Your task to perform on an android device: What's the weather? Image 0: 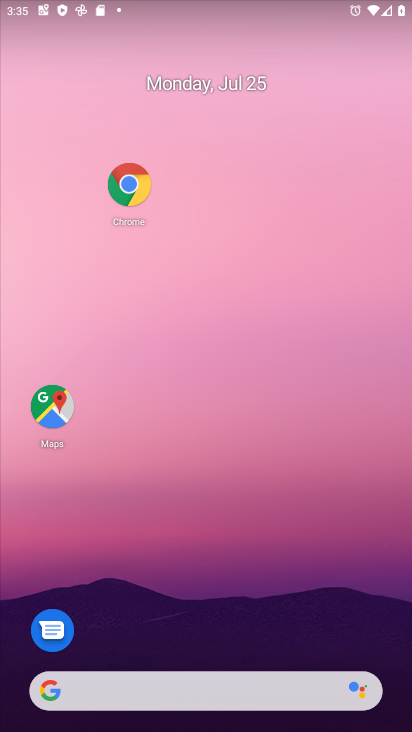
Step 0: drag from (190, 637) to (207, 202)
Your task to perform on an android device: What's the weather? Image 1: 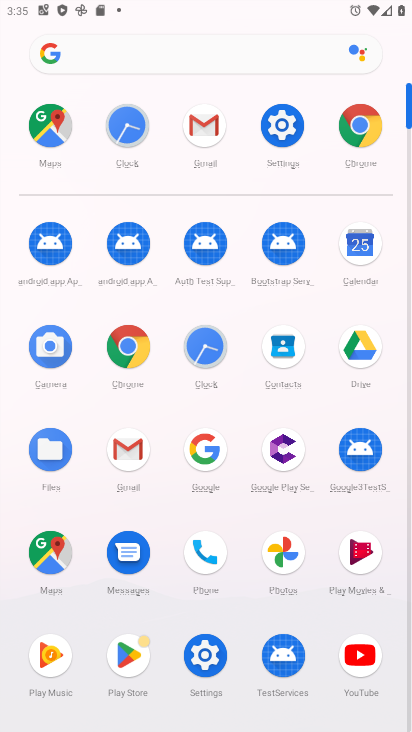
Step 1: click (206, 54)
Your task to perform on an android device: What's the weather? Image 2: 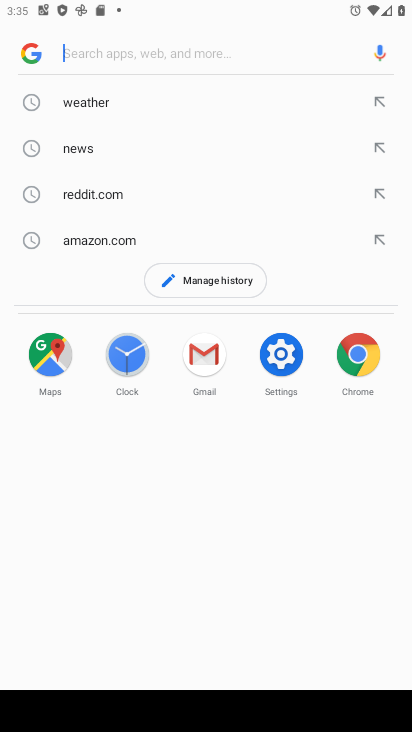
Step 2: type "weather"
Your task to perform on an android device: What's the weather? Image 3: 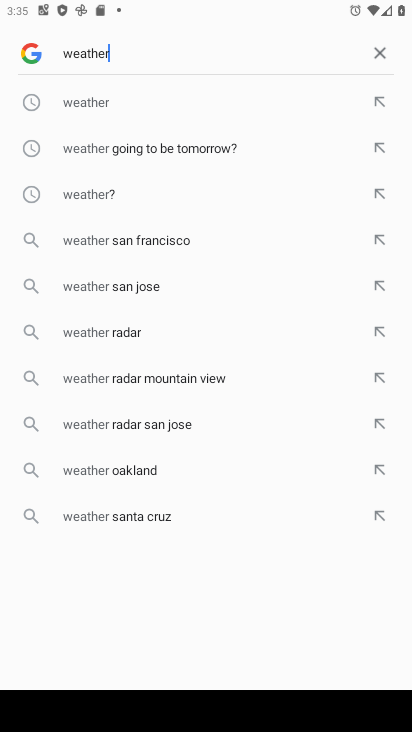
Step 3: click (164, 99)
Your task to perform on an android device: What's the weather? Image 4: 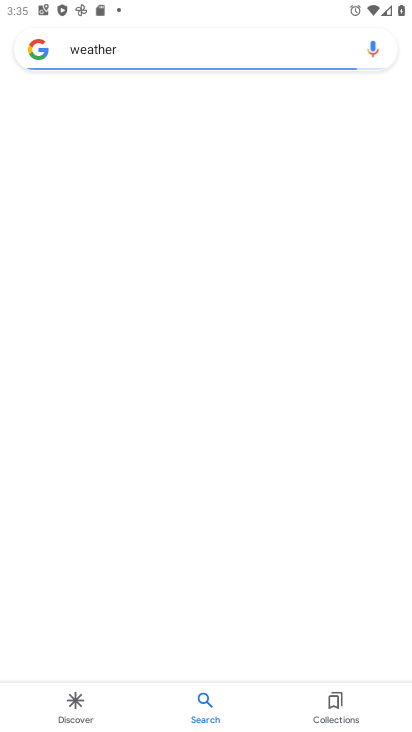
Step 4: task complete